Your task to perform on an android device: open a new tab in the chrome app Image 0: 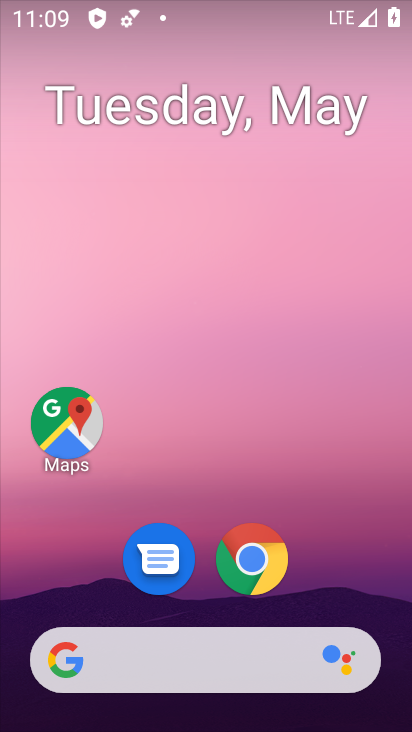
Step 0: drag from (384, 531) to (314, 182)
Your task to perform on an android device: open a new tab in the chrome app Image 1: 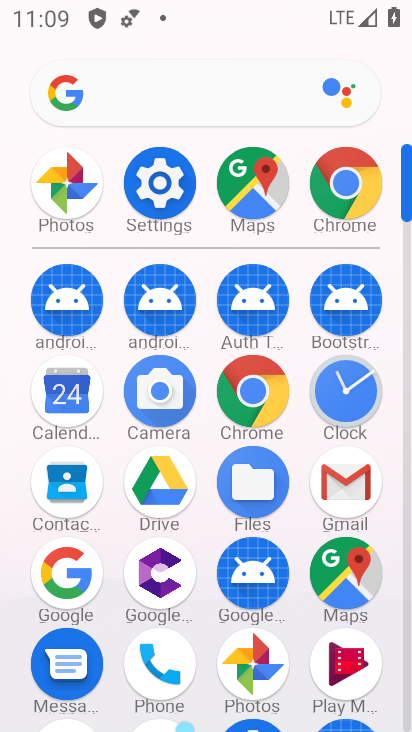
Step 1: click (272, 388)
Your task to perform on an android device: open a new tab in the chrome app Image 2: 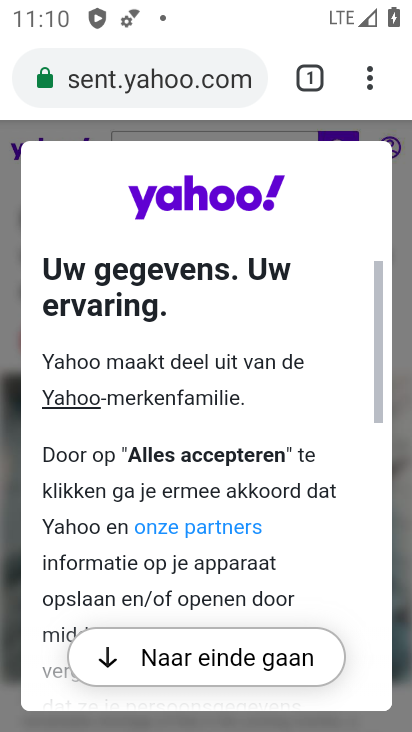
Step 2: click (320, 81)
Your task to perform on an android device: open a new tab in the chrome app Image 3: 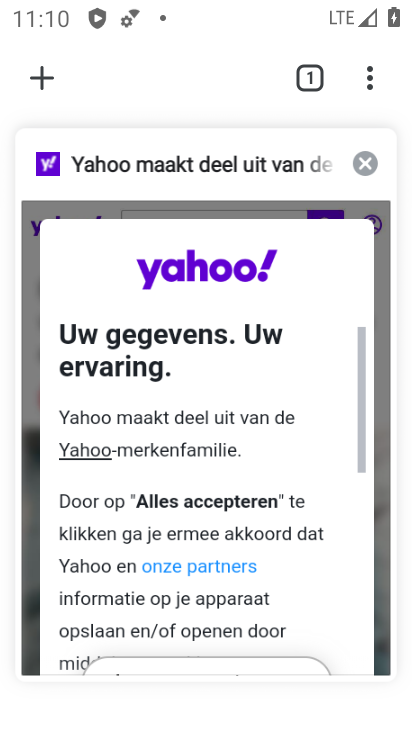
Step 3: task complete